Your task to perform on an android device: turn on showing notifications on the lock screen Image 0: 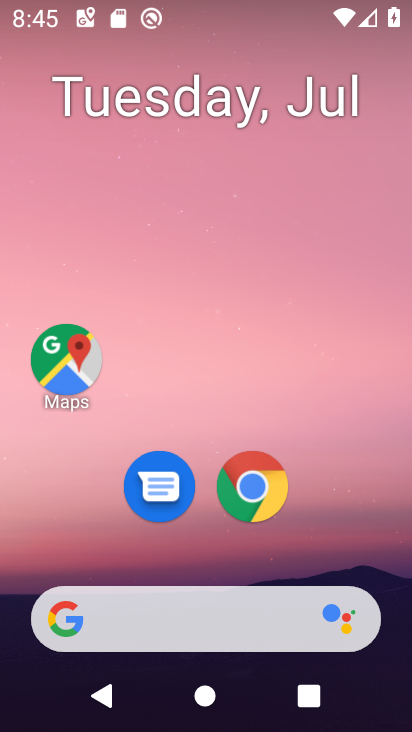
Step 0: drag from (269, 600) to (306, 173)
Your task to perform on an android device: turn on showing notifications on the lock screen Image 1: 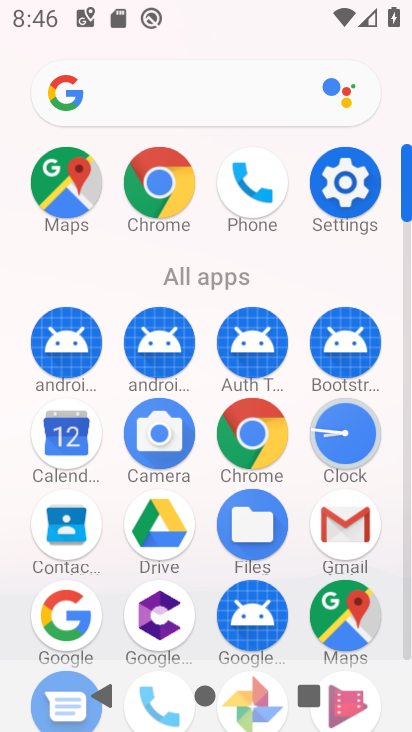
Step 1: click (352, 179)
Your task to perform on an android device: turn on showing notifications on the lock screen Image 2: 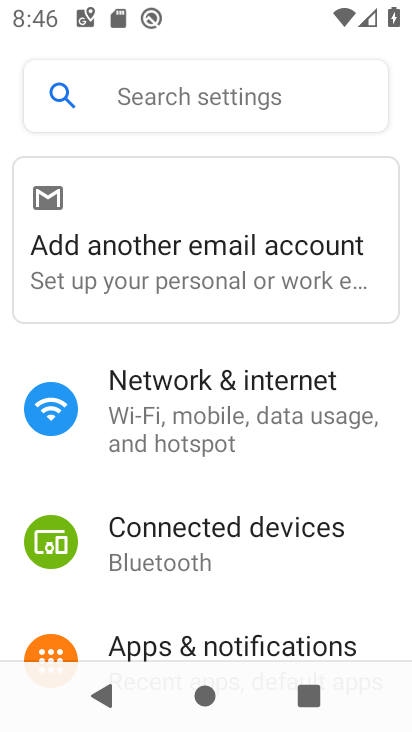
Step 2: drag from (248, 550) to (248, 367)
Your task to perform on an android device: turn on showing notifications on the lock screen Image 3: 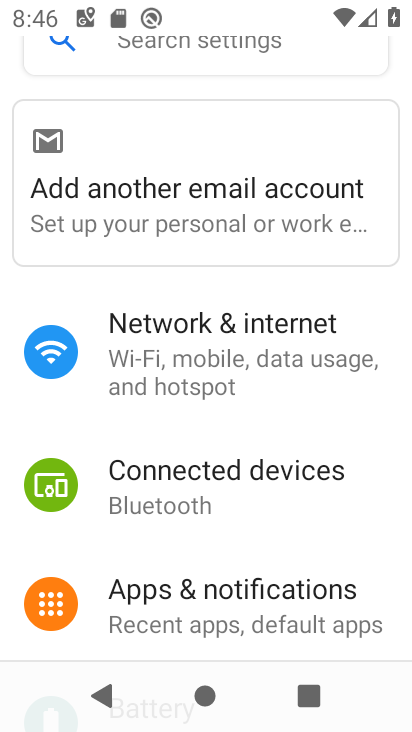
Step 3: drag from (277, 251) to (278, 204)
Your task to perform on an android device: turn on showing notifications on the lock screen Image 4: 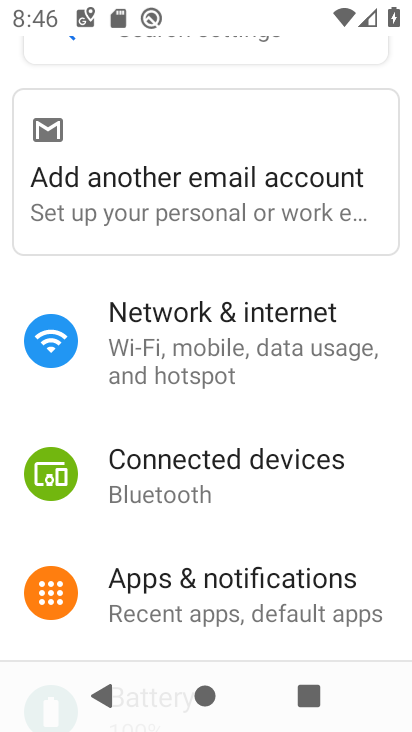
Step 4: click (245, 604)
Your task to perform on an android device: turn on showing notifications on the lock screen Image 5: 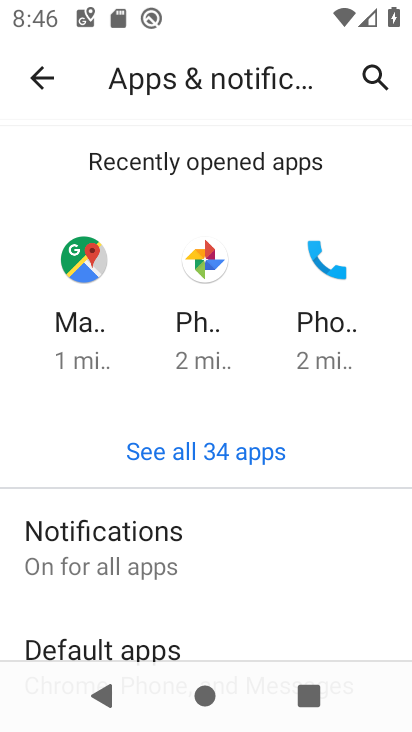
Step 5: click (170, 545)
Your task to perform on an android device: turn on showing notifications on the lock screen Image 6: 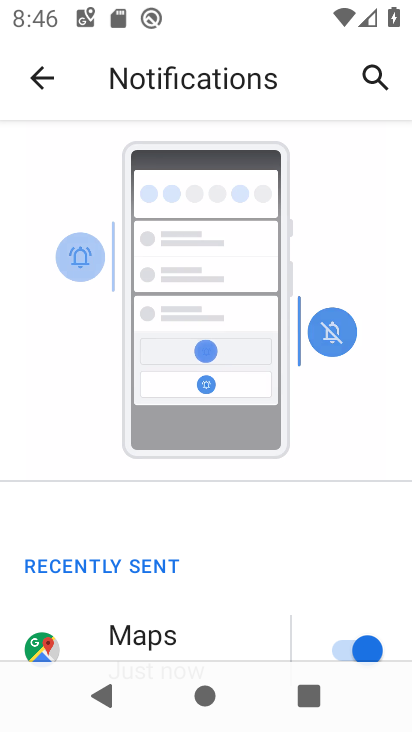
Step 6: drag from (201, 512) to (224, 316)
Your task to perform on an android device: turn on showing notifications on the lock screen Image 7: 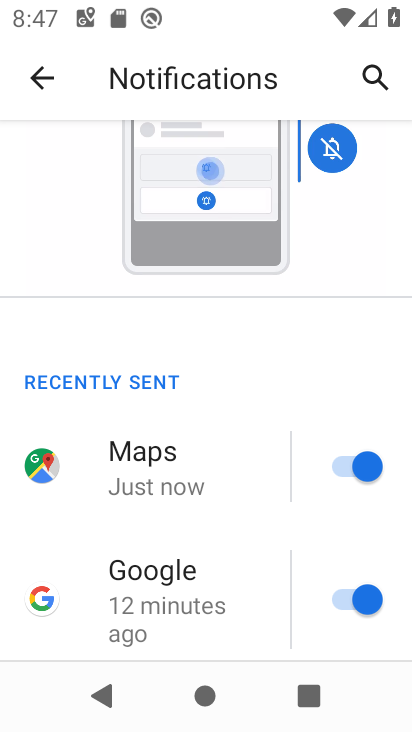
Step 7: drag from (164, 528) to (176, 330)
Your task to perform on an android device: turn on showing notifications on the lock screen Image 8: 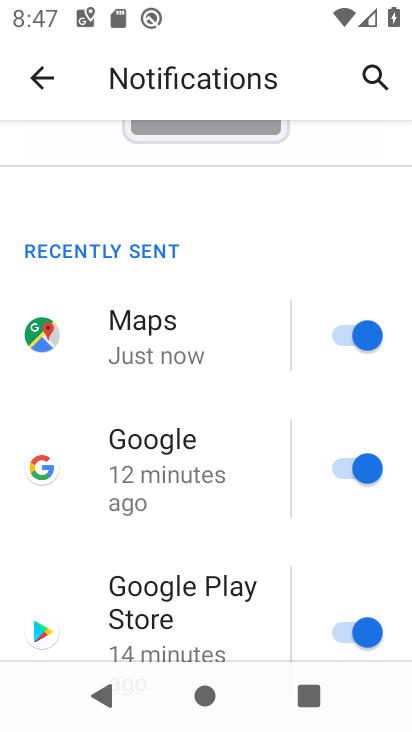
Step 8: drag from (211, 238) to (243, 15)
Your task to perform on an android device: turn on showing notifications on the lock screen Image 9: 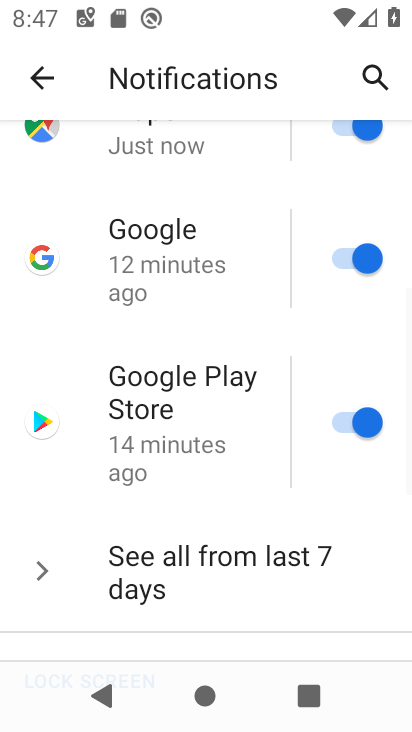
Step 9: drag from (191, 515) to (216, 171)
Your task to perform on an android device: turn on showing notifications on the lock screen Image 10: 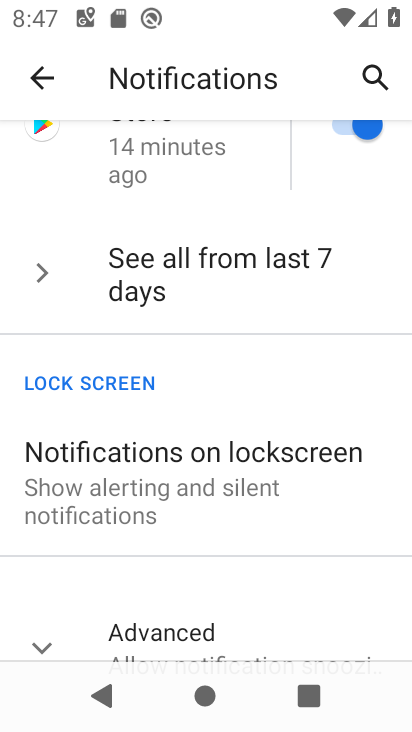
Step 10: click (226, 499)
Your task to perform on an android device: turn on showing notifications on the lock screen Image 11: 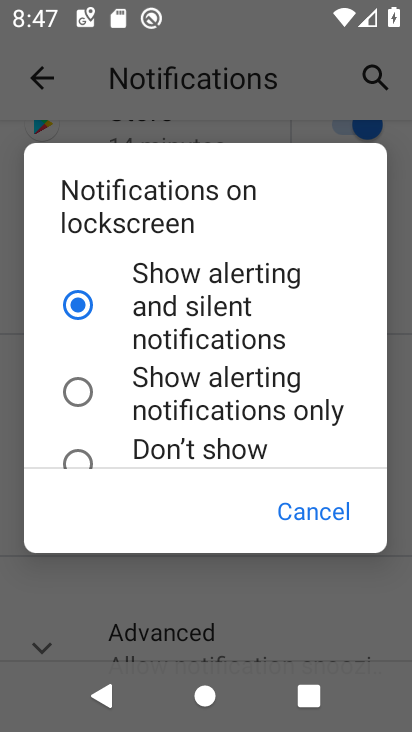
Step 11: task complete